Your task to perform on an android device: toggle location history Image 0: 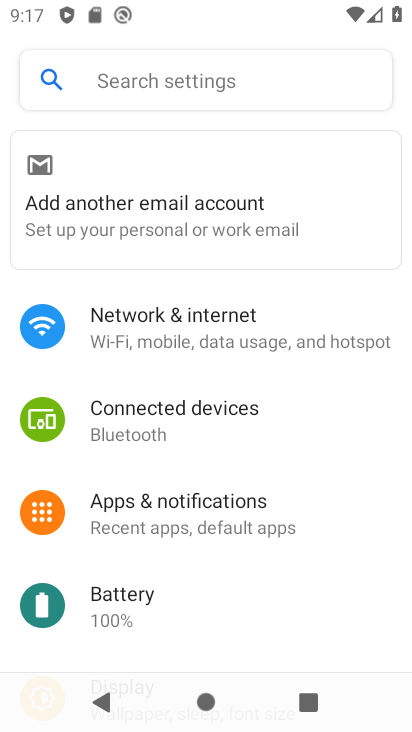
Step 0: drag from (218, 514) to (248, 133)
Your task to perform on an android device: toggle location history Image 1: 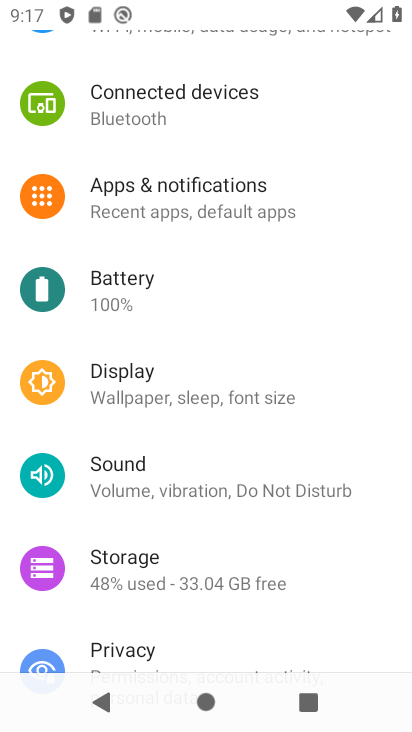
Step 1: drag from (252, 565) to (229, 144)
Your task to perform on an android device: toggle location history Image 2: 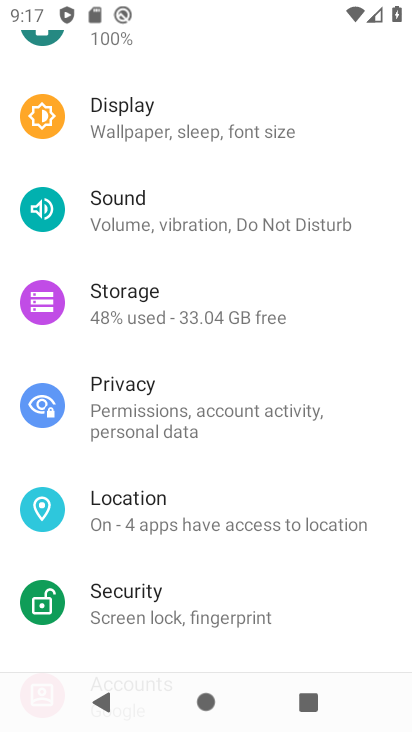
Step 2: click (192, 507)
Your task to perform on an android device: toggle location history Image 3: 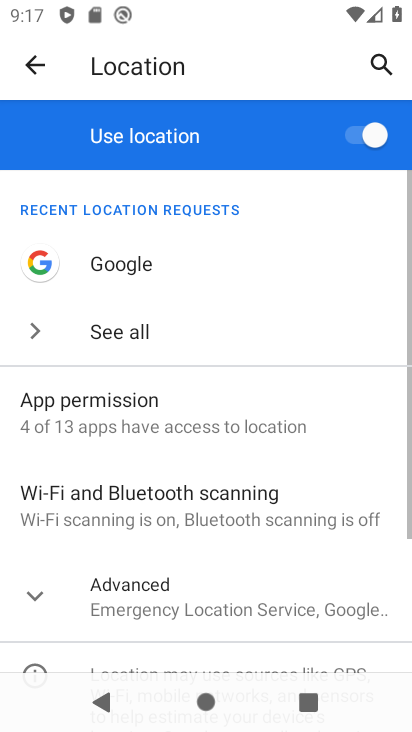
Step 3: drag from (231, 603) to (206, 186)
Your task to perform on an android device: toggle location history Image 4: 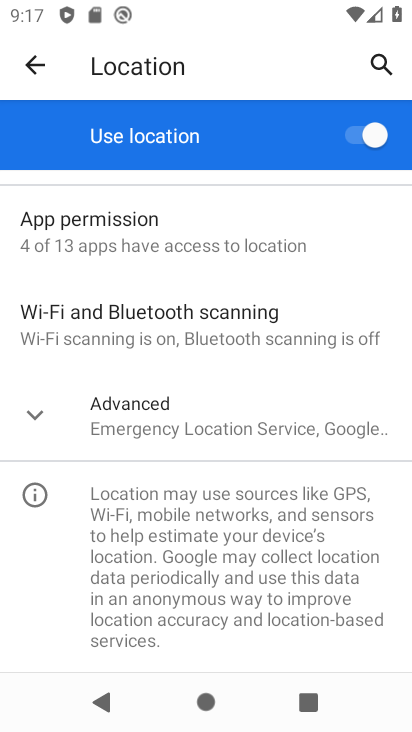
Step 4: click (175, 408)
Your task to perform on an android device: toggle location history Image 5: 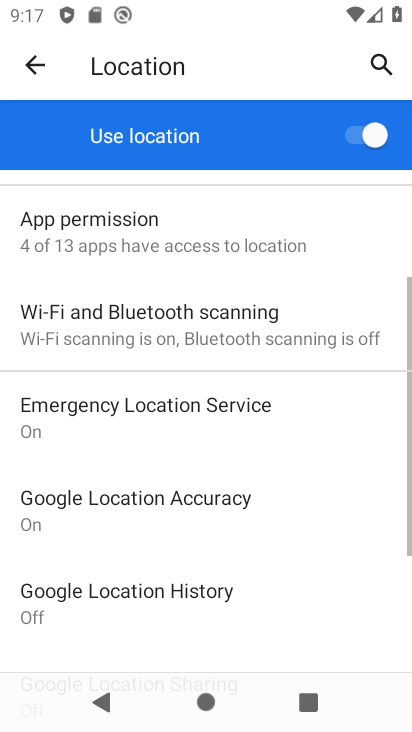
Step 5: drag from (244, 590) to (243, 487)
Your task to perform on an android device: toggle location history Image 6: 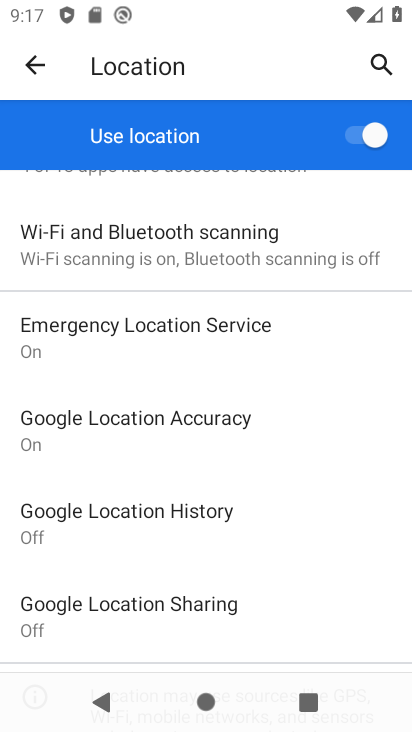
Step 6: click (156, 506)
Your task to perform on an android device: toggle location history Image 7: 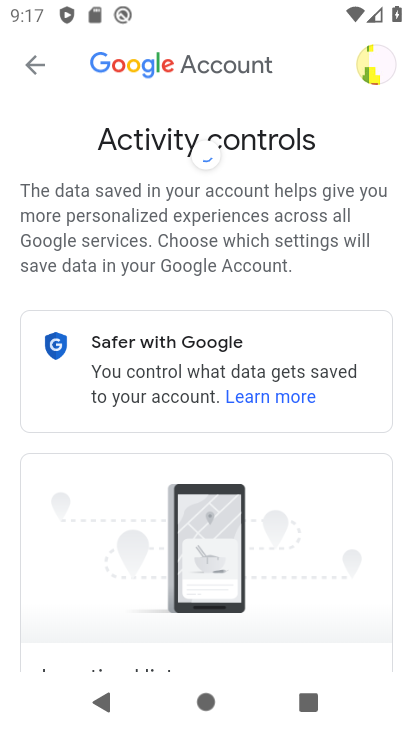
Step 7: drag from (293, 583) to (285, 183)
Your task to perform on an android device: toggle location history Image 8: 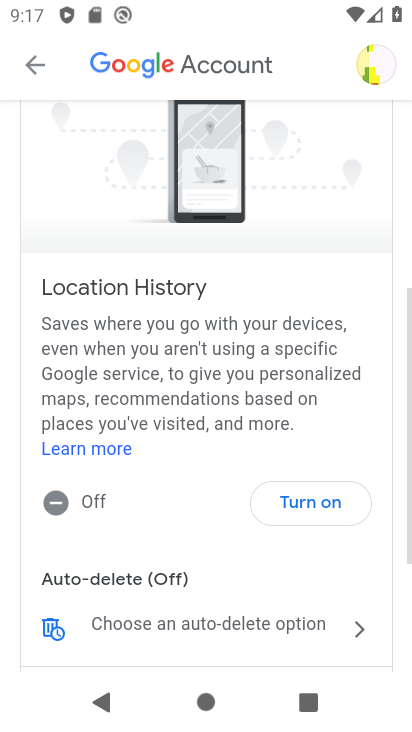
Step 8: drag from (279, 619) to (285, 225)
Your task to perform on an android device: toggle location history Image 9: 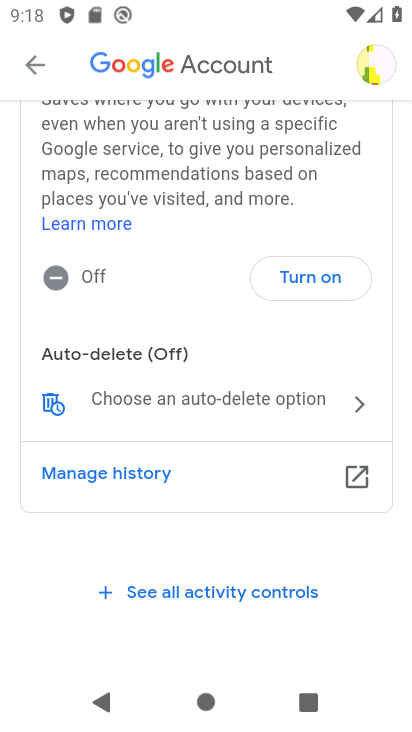
Step 9: click (303, 277)
Your task to perform on an android device: toggle location history Image 10: 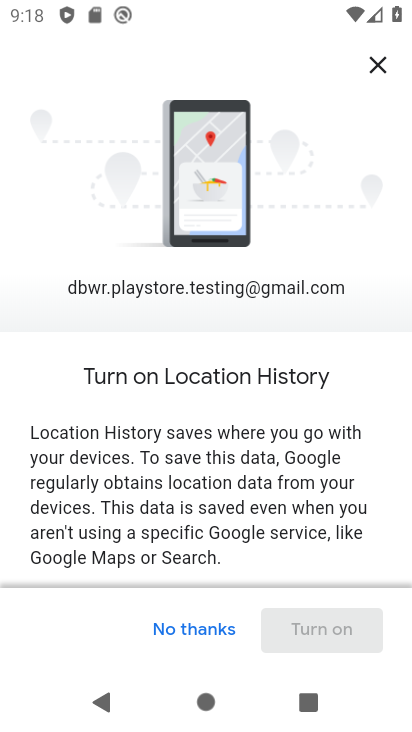
Step 10: drag from (294, 515) to (337, 21)
Your task to perform on an android device: toggle location history Image 11: 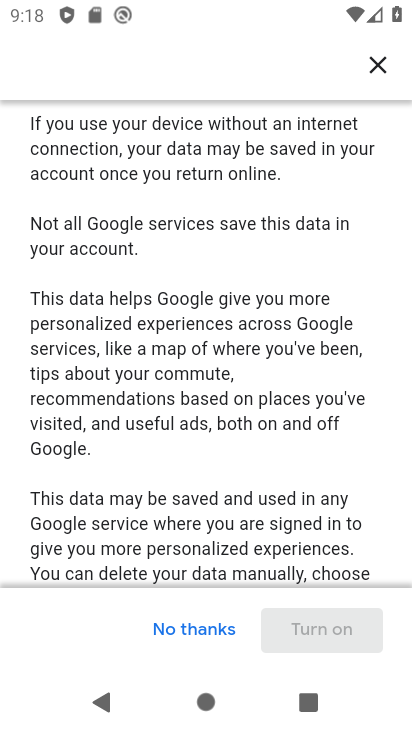
Step 11: drag from (282, 528) to (277, 94)
Your task to perform on an android device: toggle location history Image 12: 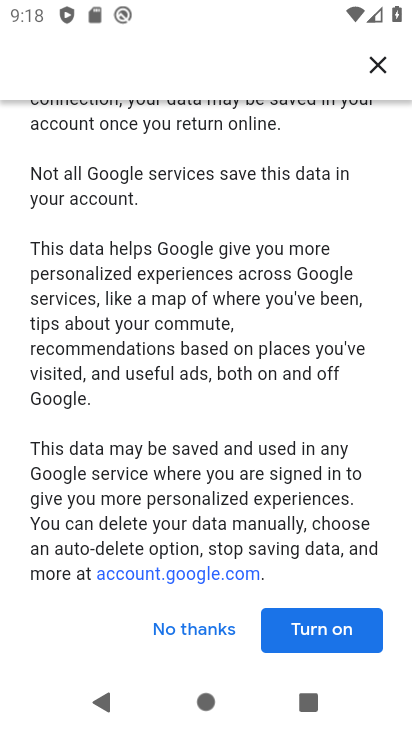
Step 12: click (310, 629)
Your task to perform on an android device: toggle location history Image 13: 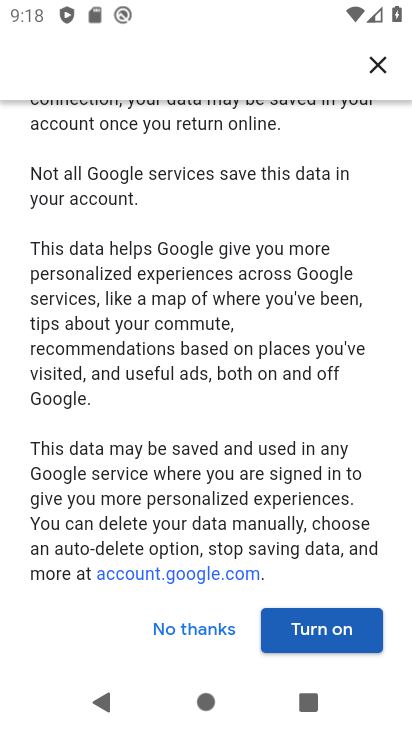
Step 13: click (322, 625)
Your task to perform on an android device: toggle location history Image 14: 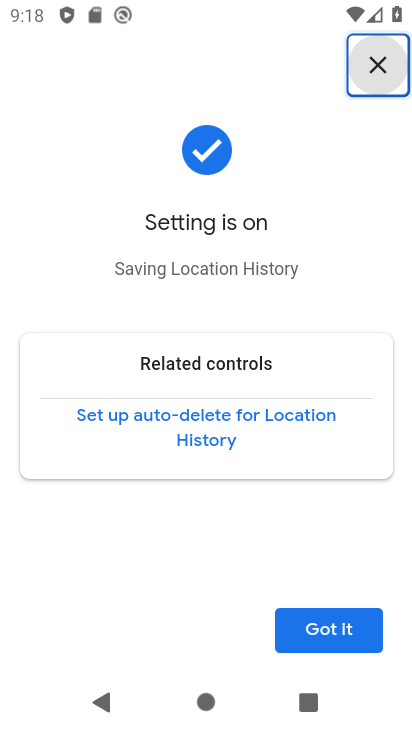
Step 14: click (306, 615)
Your task to perform on an android device: toggle location history Image 15: 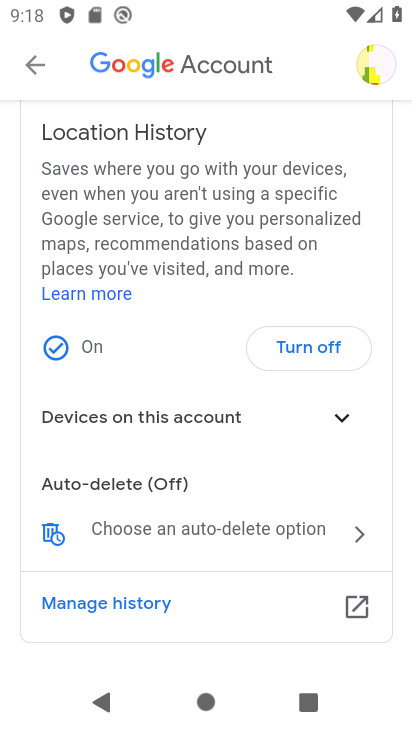
Step 15: task complete